Your task to perform on an android device: Check the news Image 0: 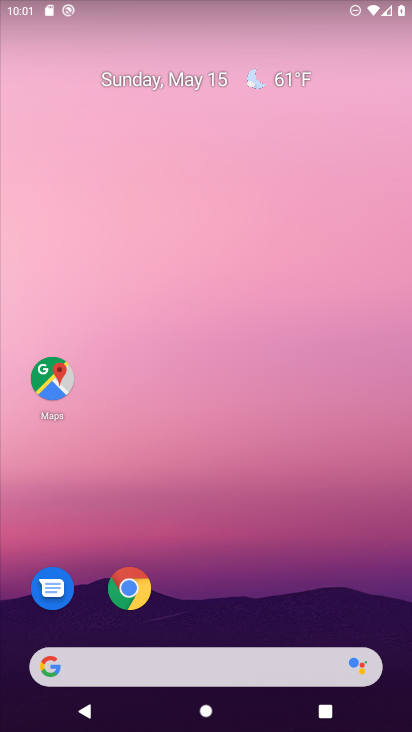
Step 0: drag from (197, 571) to (224, 162)
Your task to perform on an android device: Check the news Image 1: 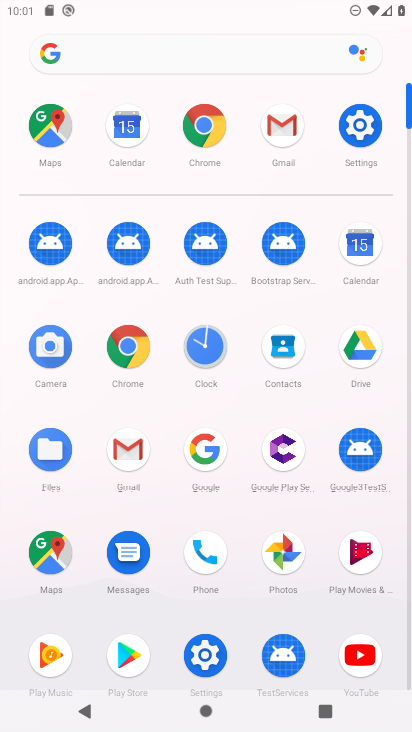
Step 1: click (190, 44)
Your task to perform on an android device: Check the news Image 2: 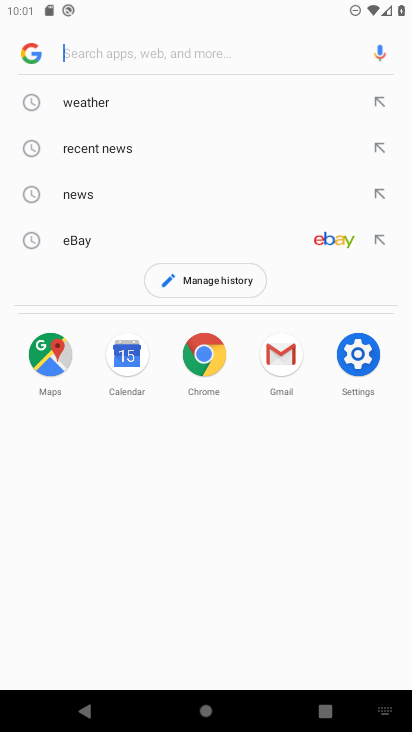
Step 2: click (95, 196)
Your task to perform on an android device: Check the news Image 3: 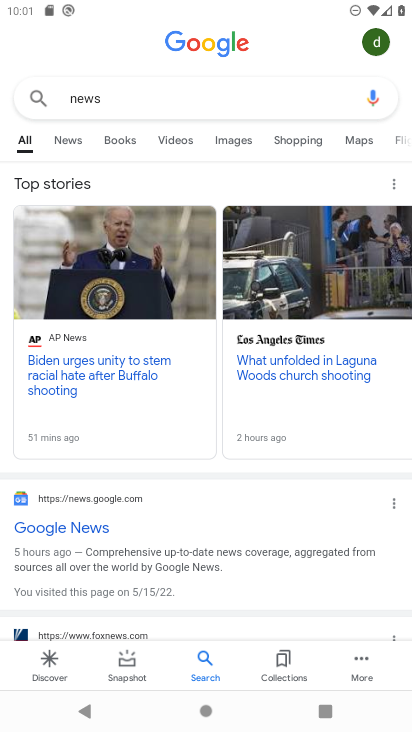
Step 3: task complete